Your task to perform on an android device: Do I have any events this weekend? Image 0: 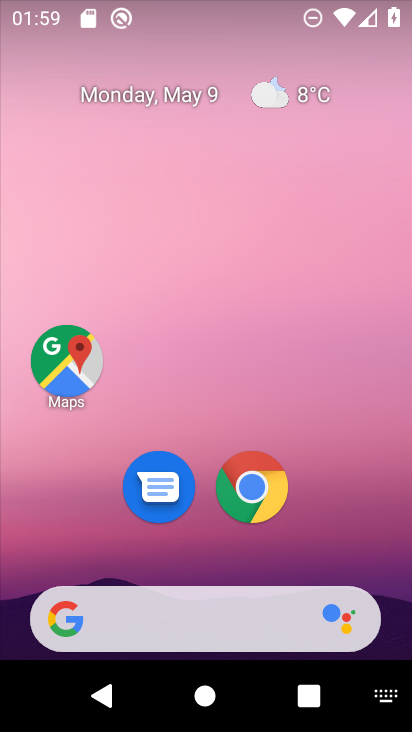
Step 0: drag from (346, 528) to (280, 73)
Your task to perform on an android device: Do I have any events this weekend? Image 1: 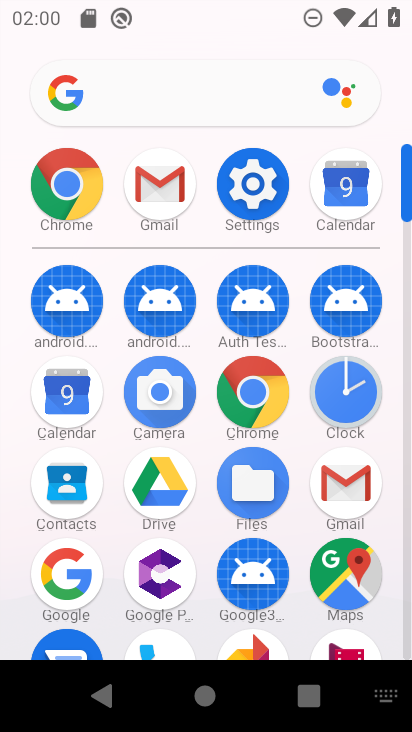
Step 1: drag from (203, 276) to (195, 163)
Your task to perform on an android device: Do I have any events this weekend? Image 2: 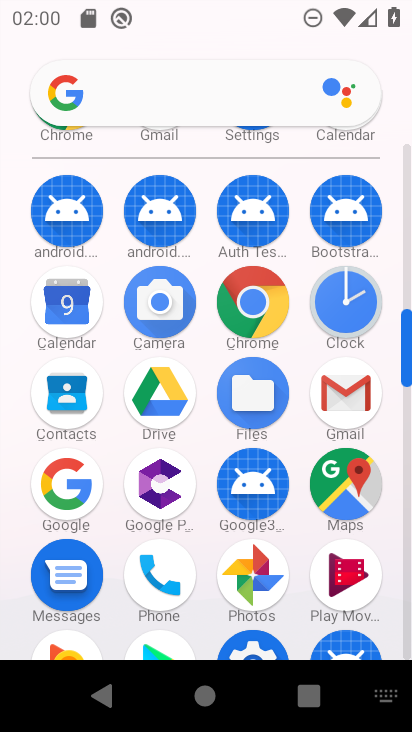
Step 2: click (61, 291)
Your task to perform on an android device: Do I have any events this weekend? Image 3: 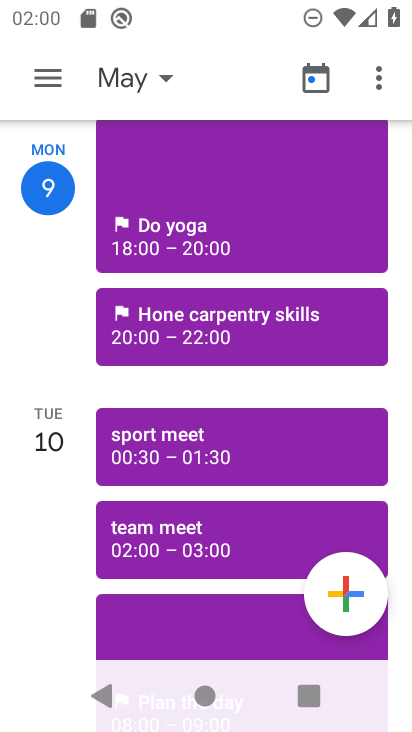
Step 3: click (49, 66)
Your task to perform on an android device: Do I have any events this weekend? Image 4: 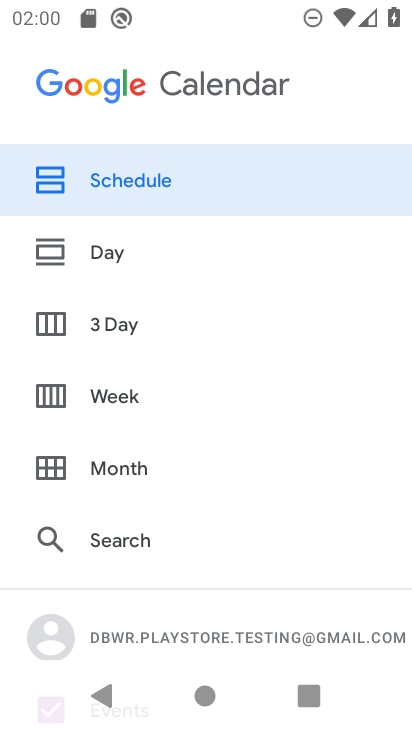
Step 4: click (112, 324)
Your task to perform on an android device: Do I have any events this weekend? Image 5: 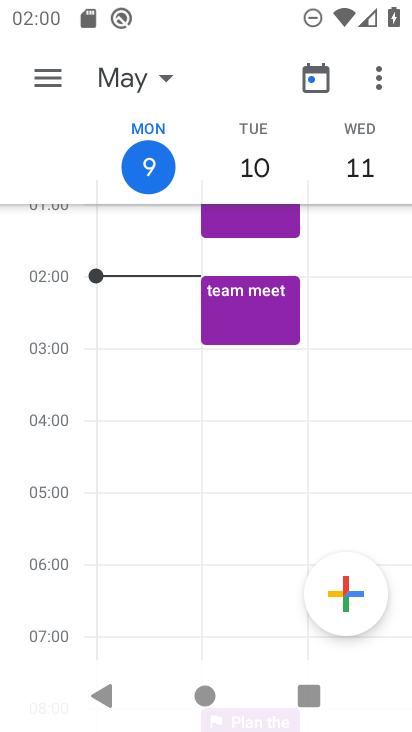
Step 5: click (132, 70)
Your task to perform on an android device: Do I have any events this weekend? Image 6: 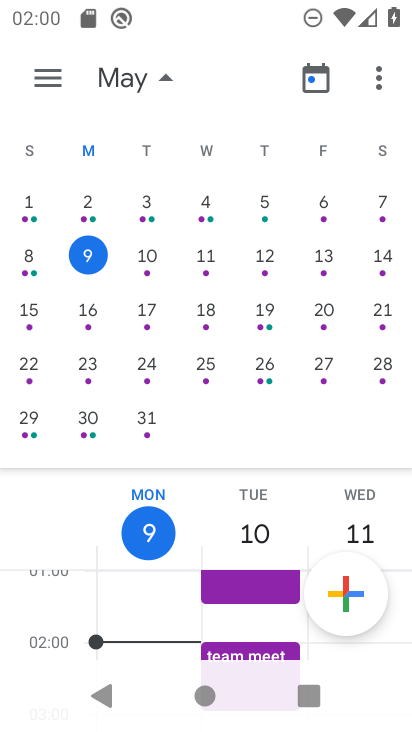
Step 6: click (337, 255)
Your task to perform on an android device: Do I have any events this weekend? Image 7: 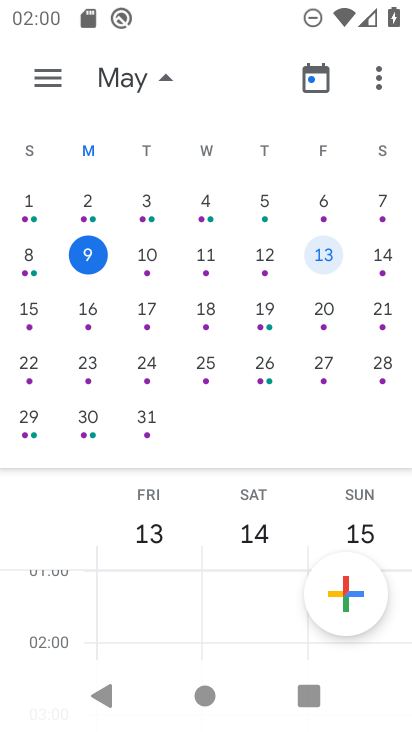
Step 7: click (323, 251)
Your task to perform on an android device: Do I have any events this weekend? Image 8: 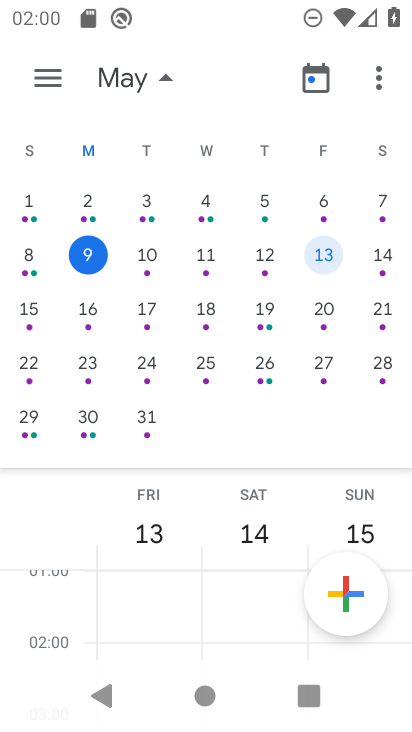
Step 8: task complete